Your task to perform on an android device: Open ESPN.com Image 0: 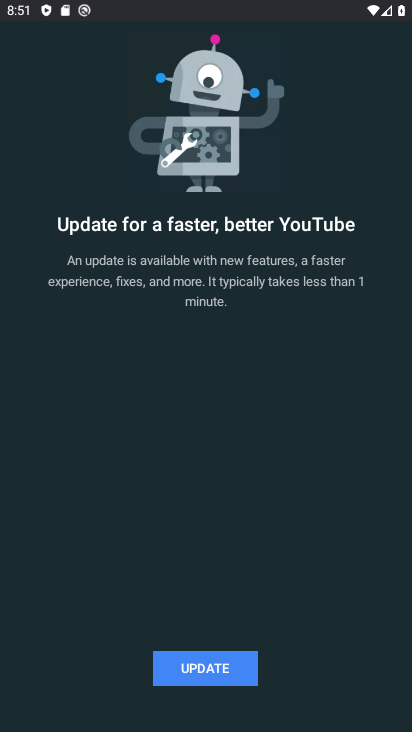
Step 0: press home button
Your task to perform on an android device: Open ESPN.com Image 1: 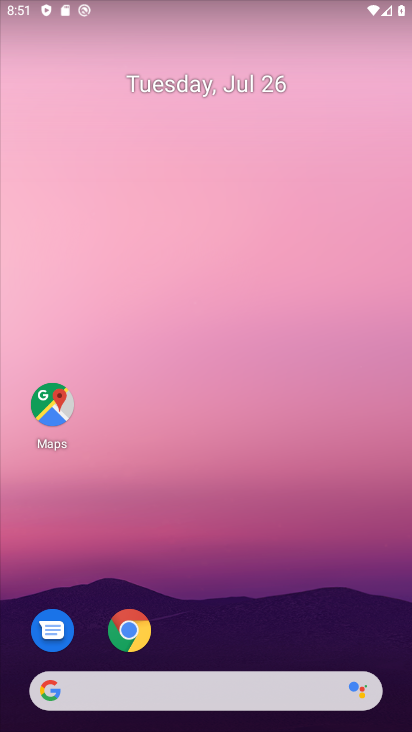
Step 1: drag from (254, 462) to (329, 28)
Your task to perform on an android device: Open ESPN.com Image 2: 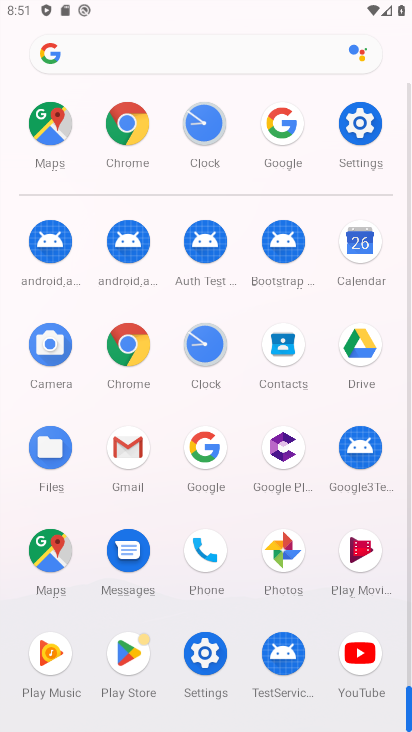
Step 2: click (125, 341)
Your task to perform on an android device: Open ESPN.com Image 3: 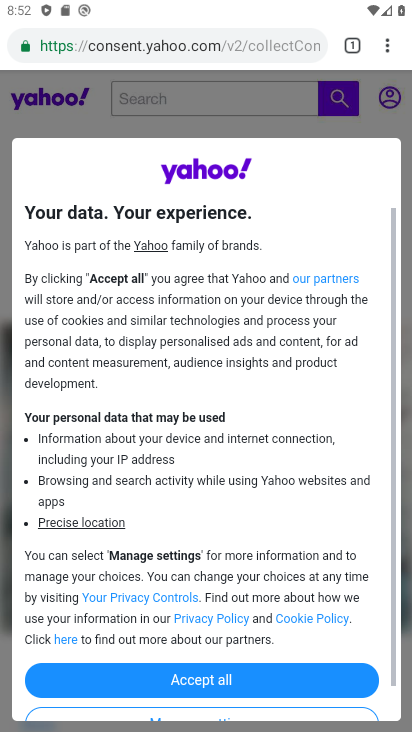
Step 3: press back button
Your task to perform on an android device: Open ESPN.com Image 4: 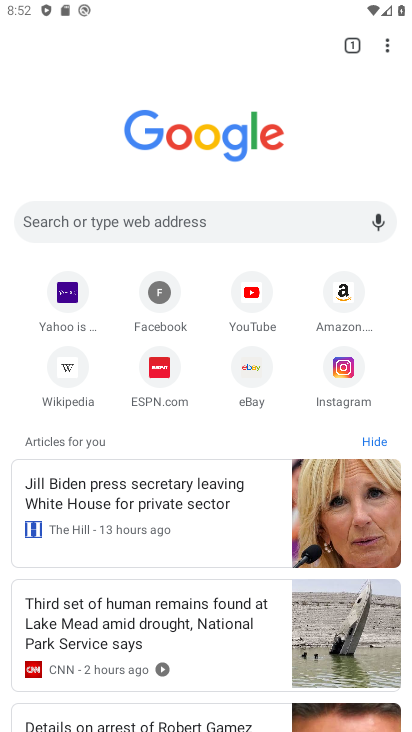
Step 4: click (164, 375)
Your task to perform on an android device: Open ESPN.com Image 5: 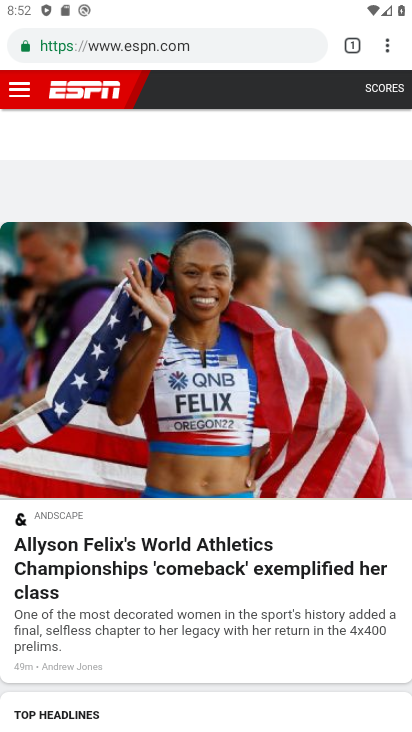
Step 5: task complete